Your task to perform on an android device: Go to location settings Image 0: 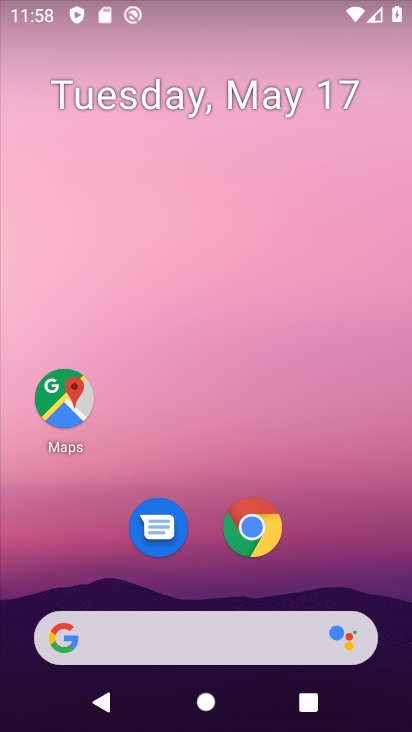
Step 0: drag from (345, 577) to (213, 94)
Your task to perform on an android device: Go to location settings Image 1: 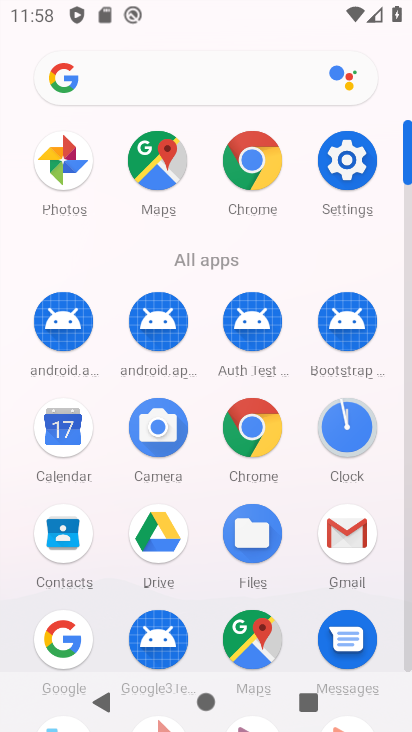
Step 1: click (347, 158)
Your task to perform on an android device: Go to location settings Image 2: 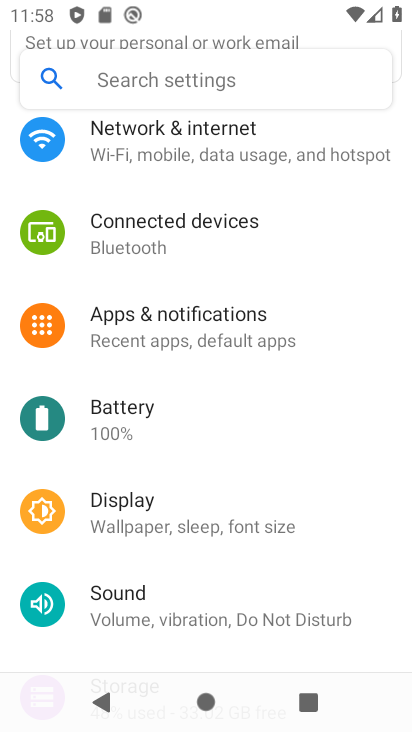
Step 2: drag from (210, 549) to (197, 213)
Your task to perform on an android device: Go to location settings Image 3: 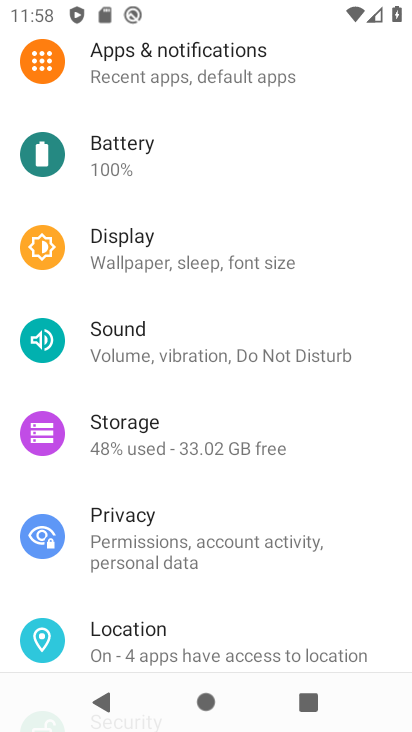
Step 3: click (196, 645)
Your task to perform on an android device: Go to location settings Image 4: 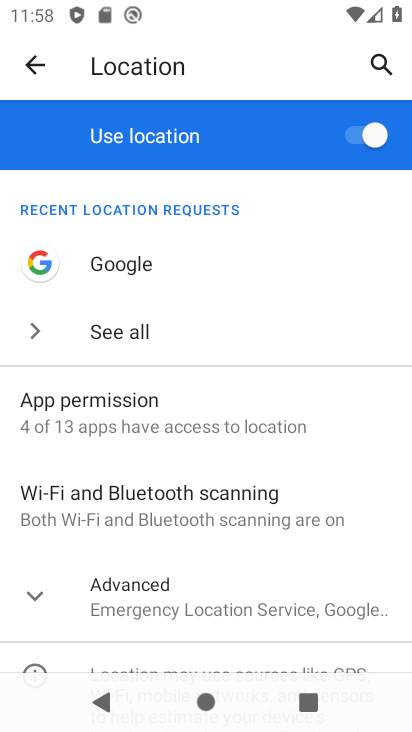
Step 4: task complete